Your task to perform on an android device: toggle priority inbox in the gmail app Image 0: 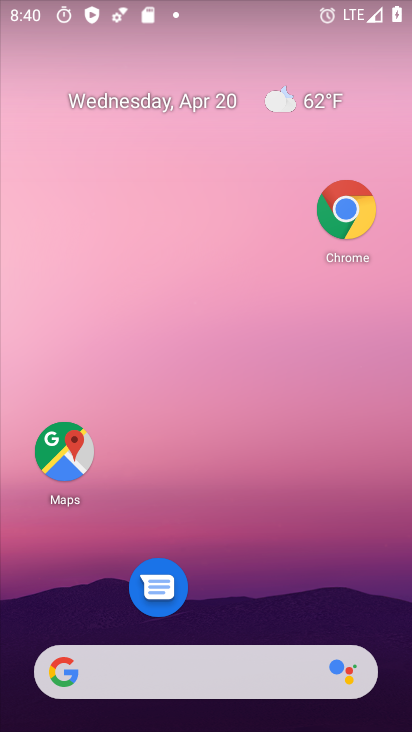
Step 0: drag from (268, 624) to (189, 160)
Your task to perform on an android device: toggle priority inbox in the gmail app Image 1: 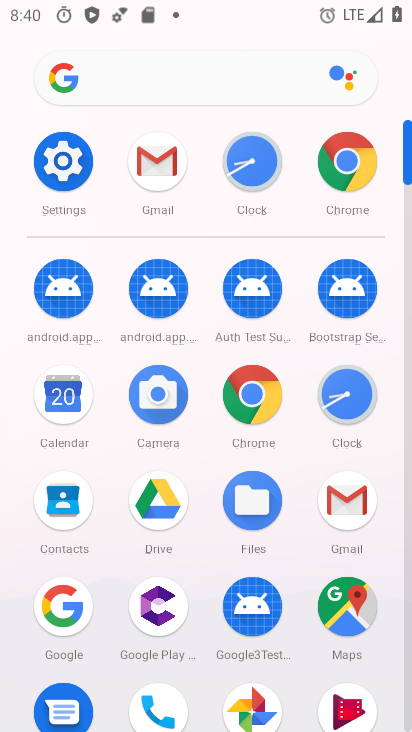
Step 1: click (356, 514)
Your task to perform on an android device: toggle priority inbox in the gmail app Image 2: 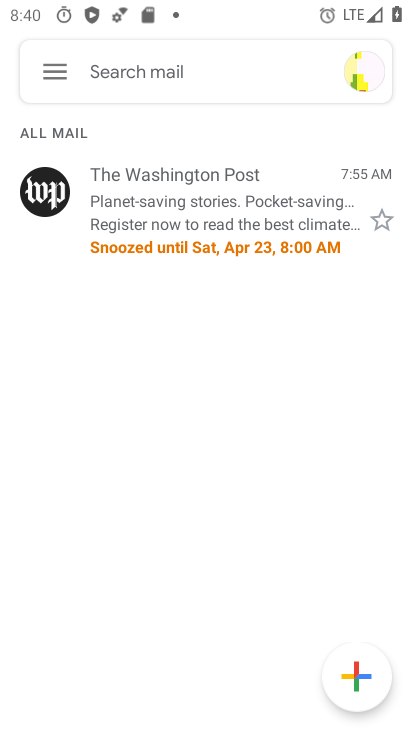
Step 2: click (68, 80)
Your task to perform on an android device: toggle priority inbox in the gmail app Image 3: 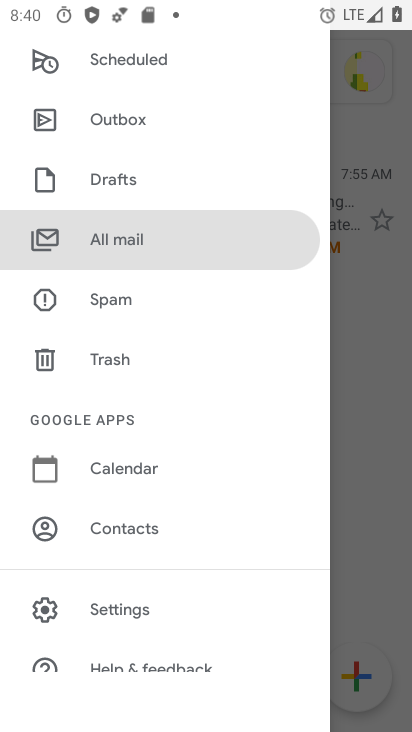
Step 3: click (77, 617)
Your task to perform on an android device: toggle priority inbox in the gmail app Image 4: 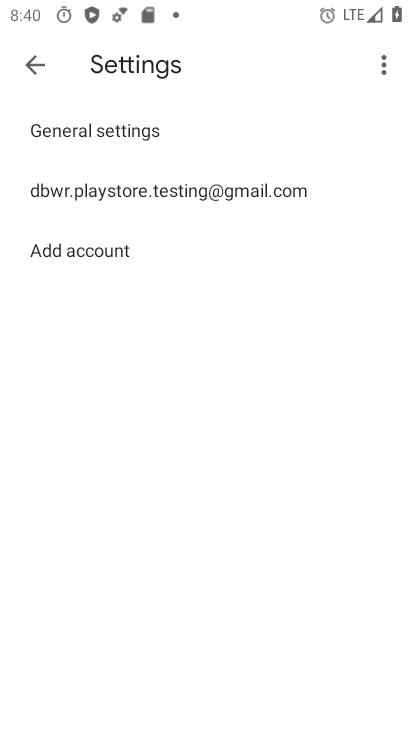
Step 4: click (252, 197)
Your task to perform on an android device: toggle priority inbox in the gmail app Image 5: 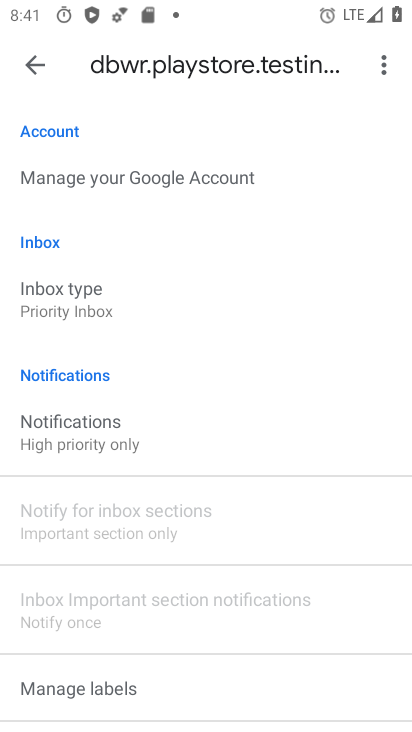
Step 5: click (161, 317)
Your task to perform on an android device: toggle priority inbox in the gmail app Image 6: 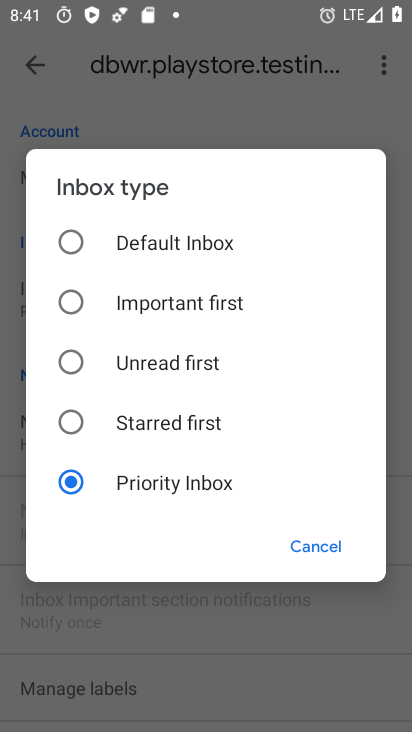
Step 6: click (147, 436)
Your task to perform on an android device: toggle priority inbox in the gmail app Image 7: 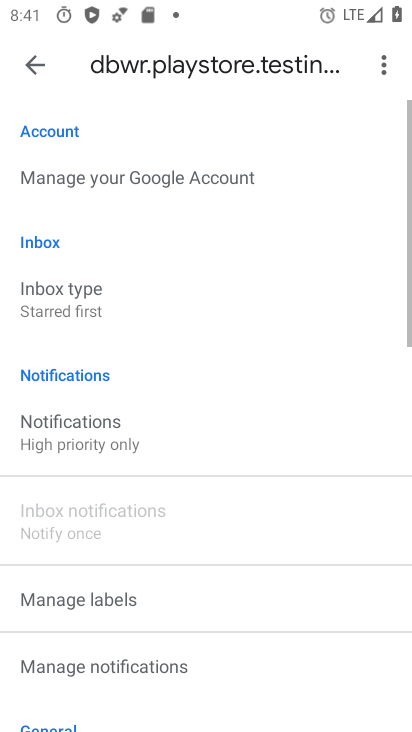
Step 7: task complete